Your task to perform on an android device: open app "Life360: Find Family & Friends" (install if not already installed) Image 0: 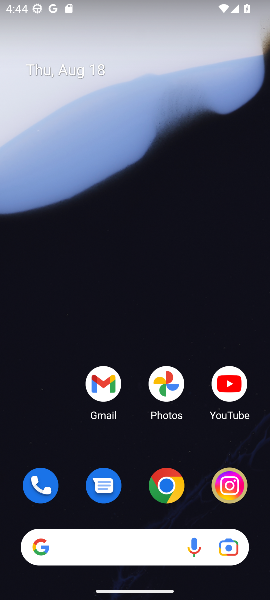
Step 0: drag from (121, 383) to (160, 78)
Your task to perform on an android device: open app "Life360: Find Family & Friends" (install if not already installed) Image 1: 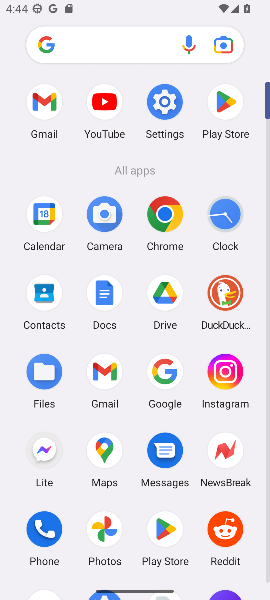
Step 1: click (215, 102)
Your task to perform on an android device: open app "Life360: Find Family & Friends" (install if not already installed) Image 2: 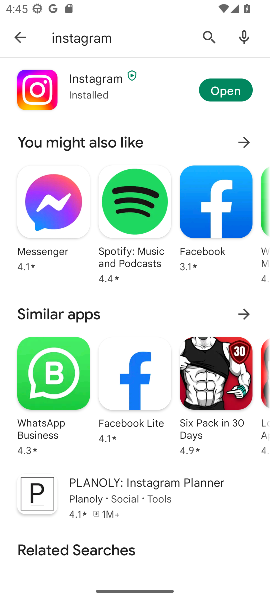
Step 2: click (195, 34)
Your task to perform on an android device: open app "Life360: Find Family & Friends" (install if not already installed) Image 3: 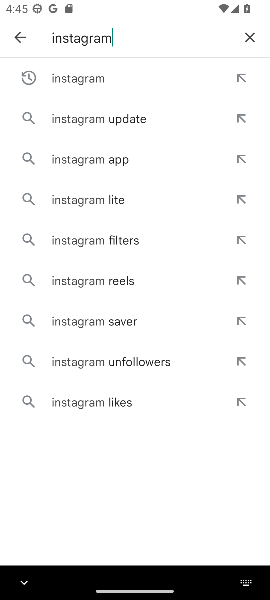
Step 3: click (245, 36)
Your task to perform on an android device: open app "Life360: Find Family & Friends" (install if not already installed) Image 4: 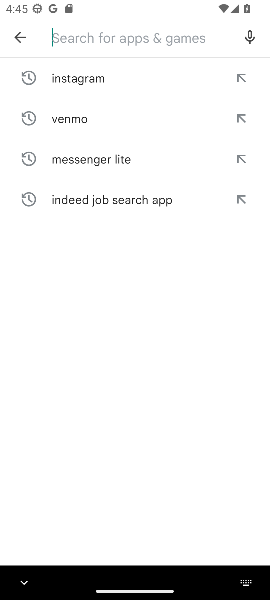
Step 4: click (130, 42)
Your task to perform on an android device: open app "Life360: Find Family & Friends" (install if not already installed) Image 5: 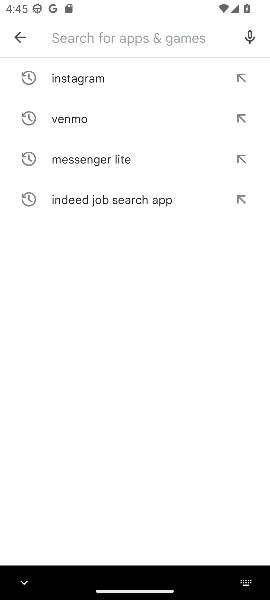
Step 5: type "life360"
Your task to perform on an android device: open app "Life360: Find Family & Friends" (install if not already installed) Image 6: 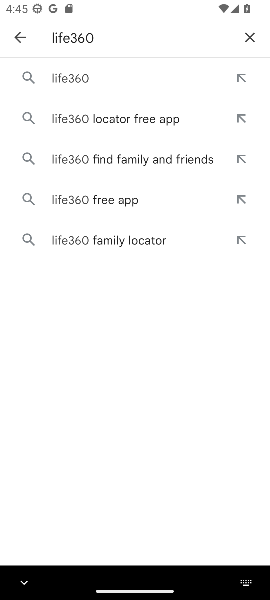
Step 6: click (68, 79)
Your task to perform on an android device: open app "Life360: Find Family & Friends" (install if not already installed) Image 7: 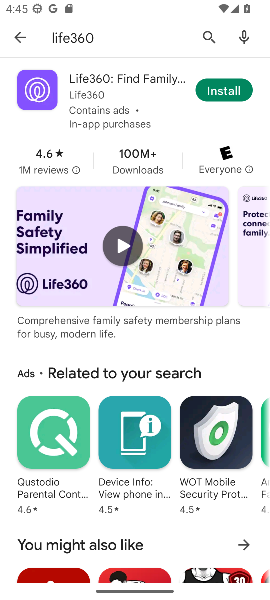
Step 7: click (204, 89)
Your task to perform on an android device: open app "Life360: Find Family & Friends" (install if not already installed) Image 8: 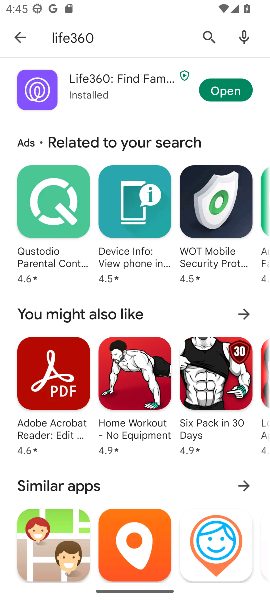
Step 8: click (209, 94)
Your task to perform on an android device: open app "Life360: Find Family & Friends" (install if not already installed) Image 9: 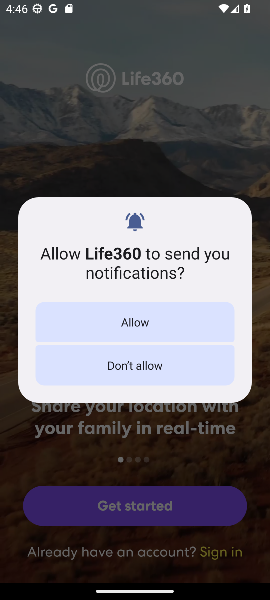
Step 9: task complete